Your task to perform on an android device: Open Google Image 0: 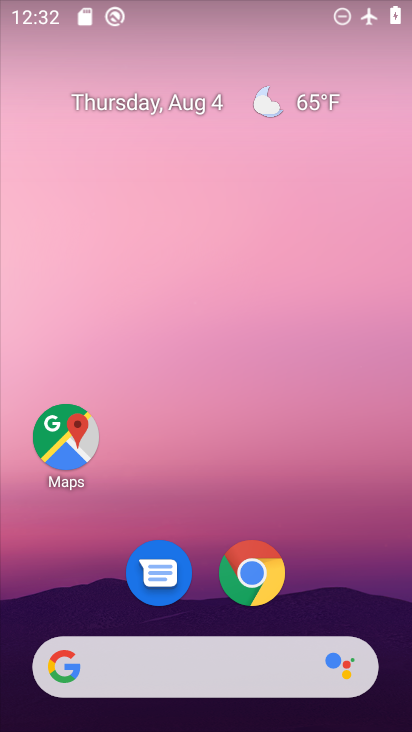
Step 0: drag from (352, 550) to (353, 69)
Your task to perform on an android device: Open Google Image 1: 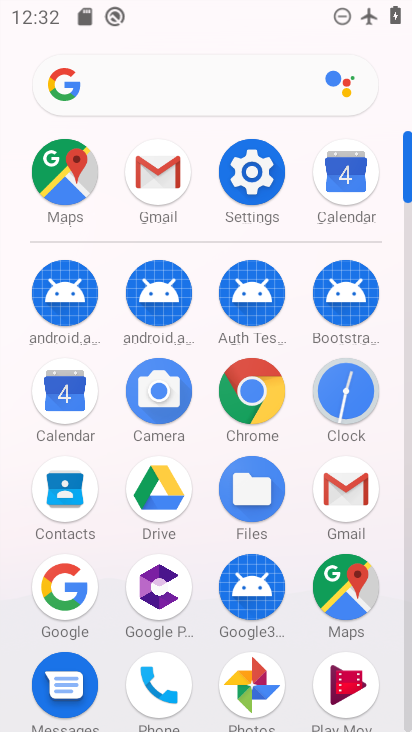
Step 1: click (69, 600)
Your task to perform on an android device: Open Google Image 2: 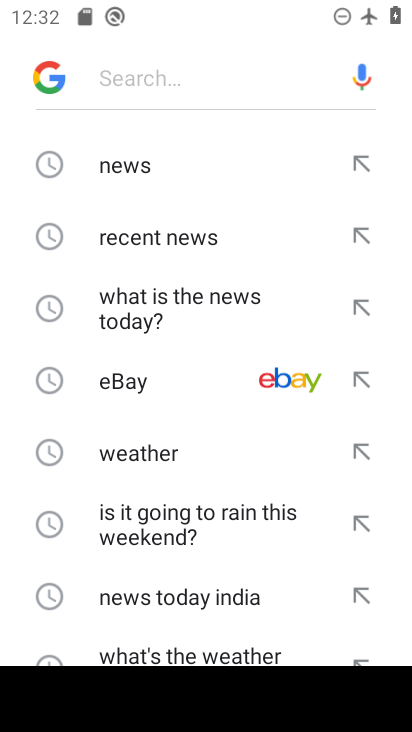
Step 2: task complete